Your task to perform on an android device: Open settings Image 0: 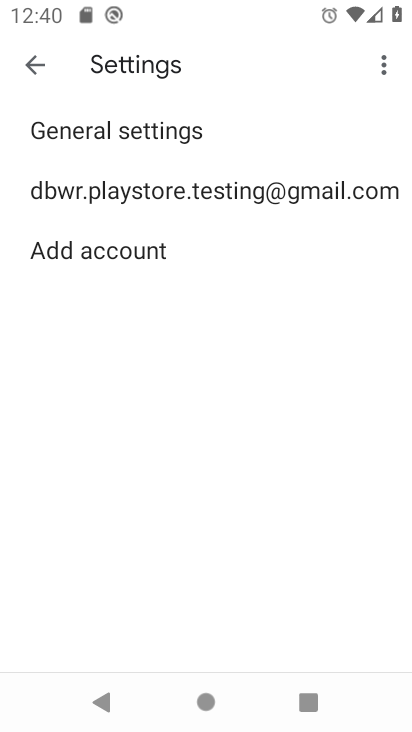
Step 0: press home button
Your task to perform on an android device: Open settings Image 1: 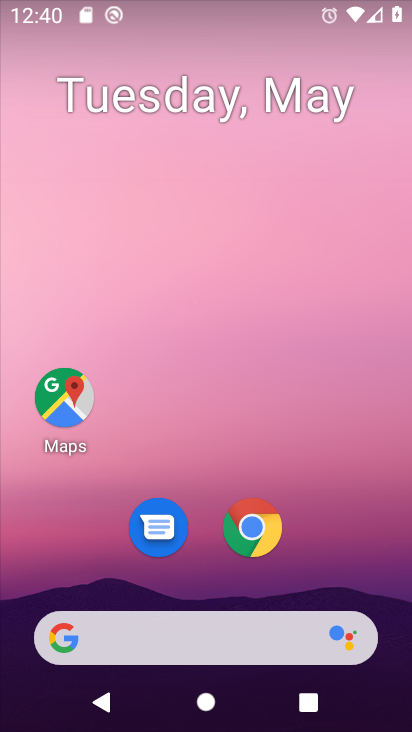
Step 1: drag from (268, 599) to (331, 0)
Your task to perform on an android device: Open settings Image 2: 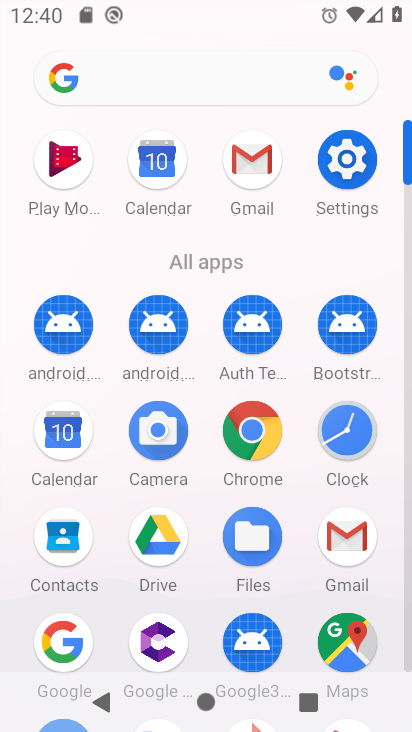
Step 2: click (351, 166)
Your task to perform on an android device: Open settings Image 3: 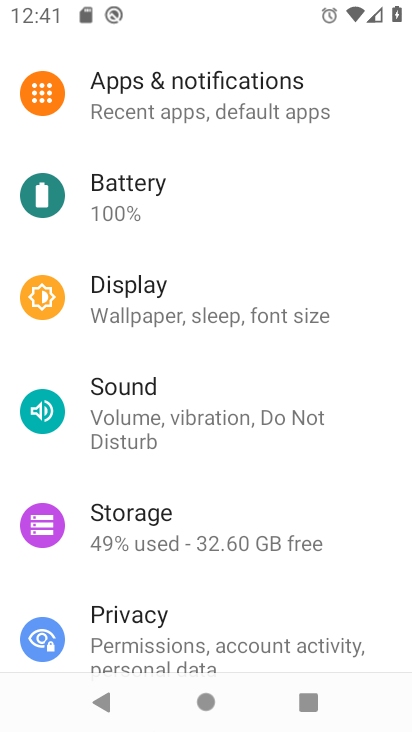
Step 3: task complete